Your task to perform on an android device: Go to CNN.com Image 0: 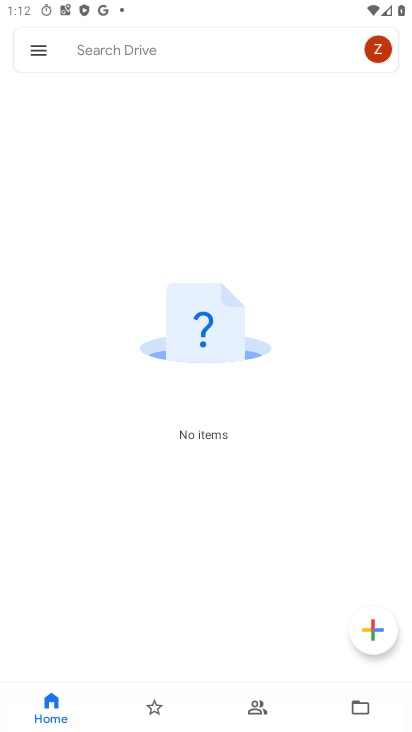
Step 0: press home button
Your task to perform on an android device: Go to CNN.com Image 1: 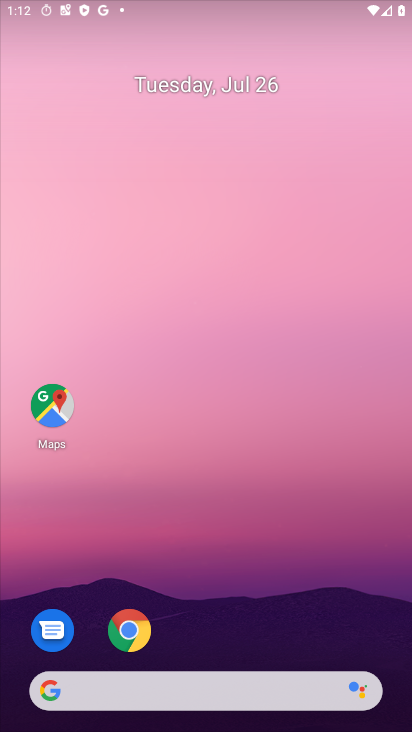
Step 1: drag from (202, 642) to (293, 17)
Your task to perform on an android device: Go to CNN.com Image 2: 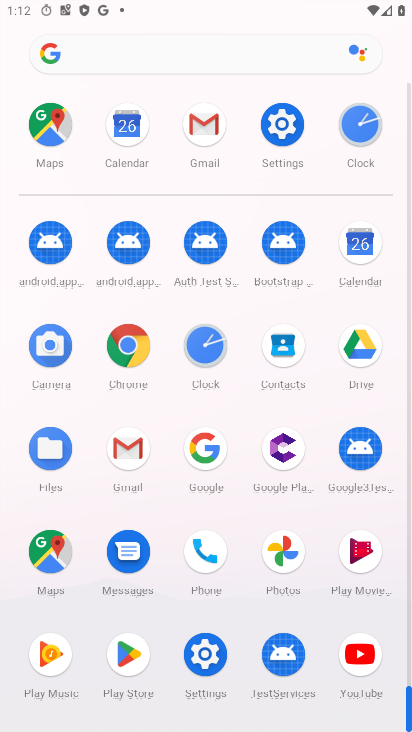
Step 2: click (112, 345)
Your task to perform on an android device: Go to CNN.com Image 3: 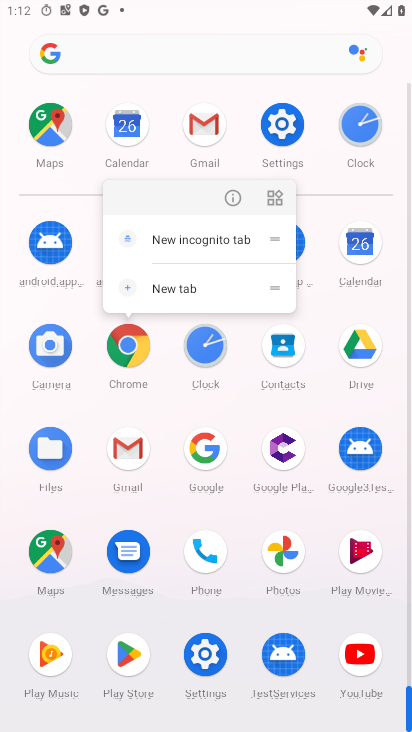
Step 3: click (122, 354)
Your task to perform on an android device: Go to CNN.com Image 4: 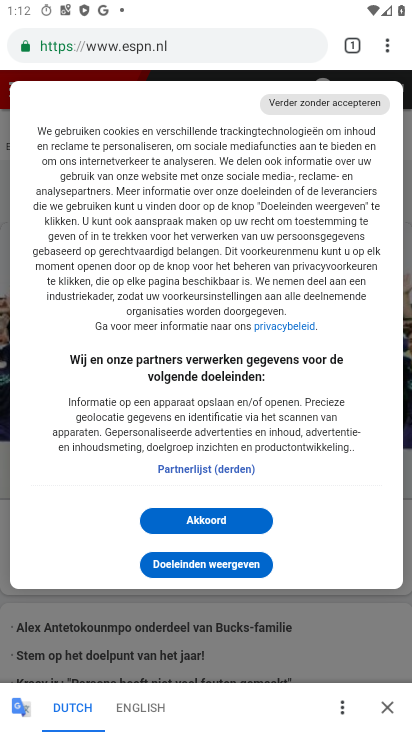
Step 4: click (184, 46)
Your task to perform on an android device: Go to CNN.com Image 5: 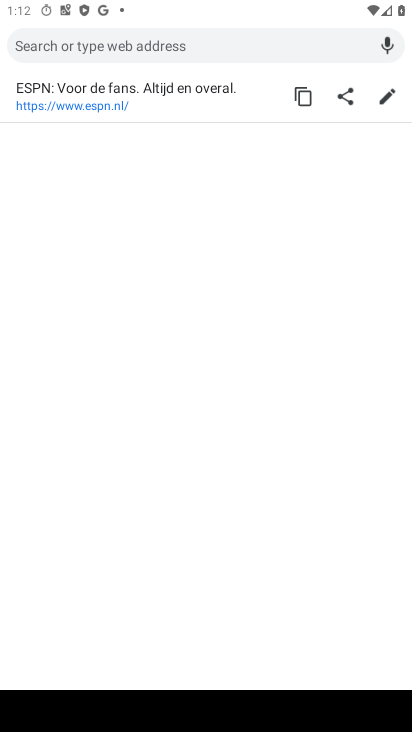
Step 5: type " CNN.com"
Your task to perform on an android device: Go to CNN.com Image 6: 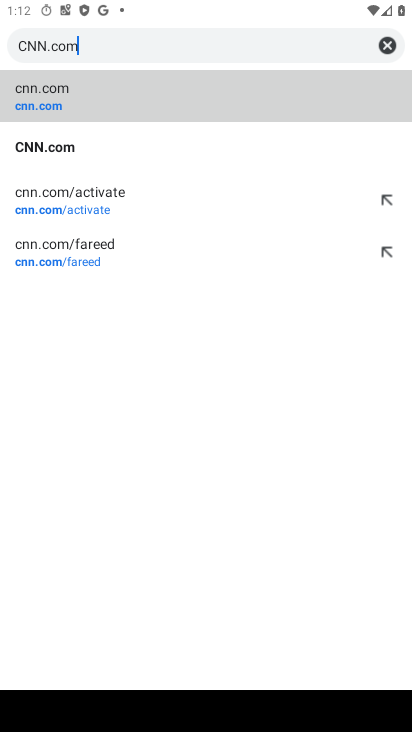
Step 6: click (65, 151)
Your task to perform on an android device: Go to CNN.com Image 7: 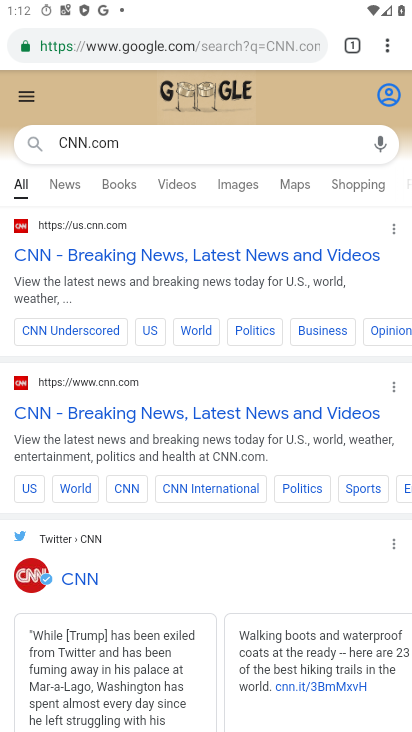
Step 7: click (68, 255)
Your task to perform on an android device: Go to CNN.com Image 8: 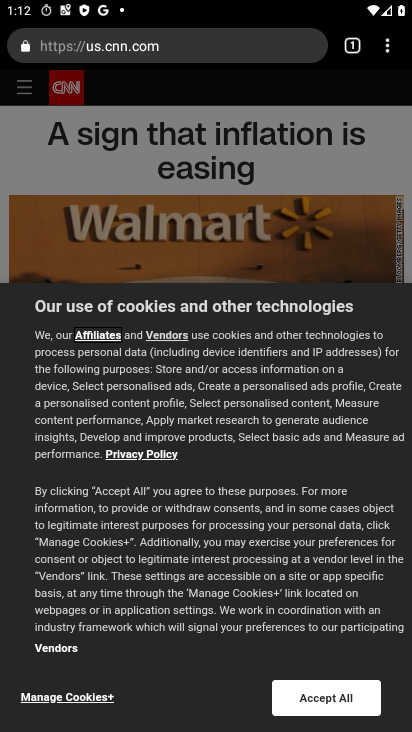
Step 8: task complete